Your task to perform on an android device: turn off improve location accuracy Image 0: 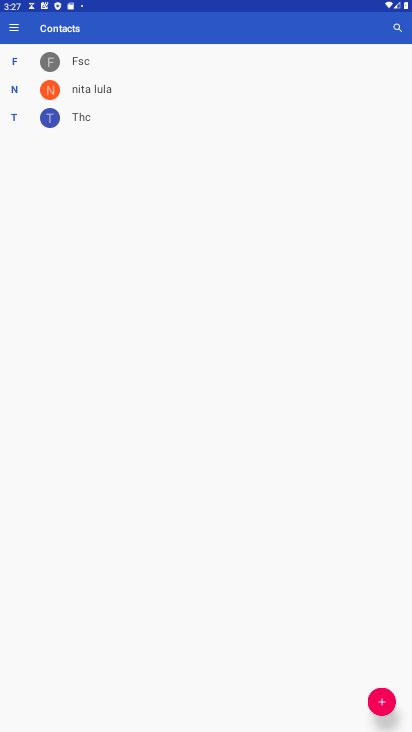
Step 0: press home button
Your task to perform on an android device: turn off improve location accuracy Image 1: 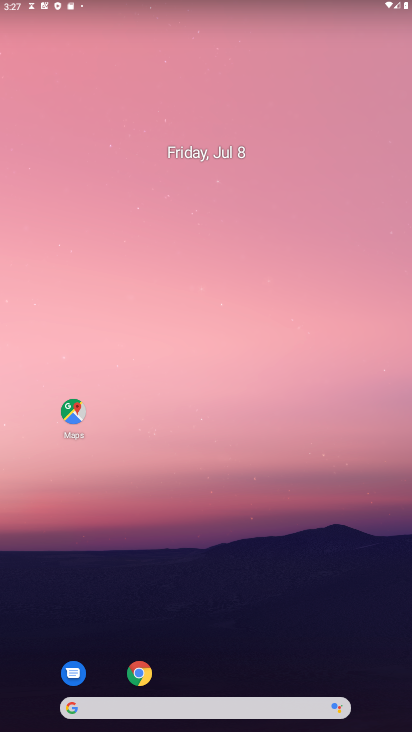
Step 1: drag from (169, 666) to (223, 118)
Your task to perform on an android device: turn off improve location accuracy Image 2: 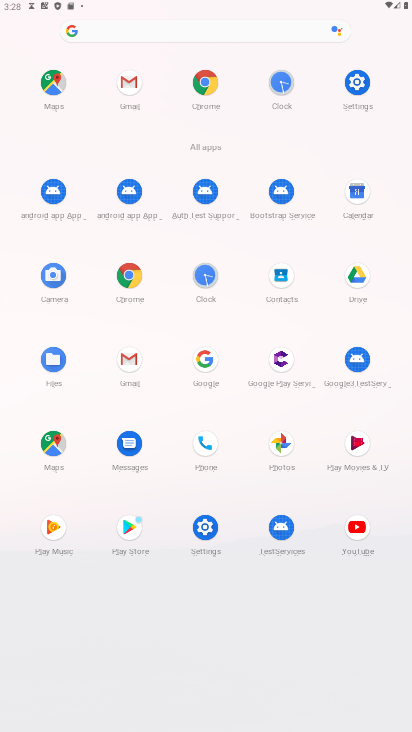
Step 2: click (204, 535)
Your task to perform on an android device: turn off improve location accuracy Image 3: 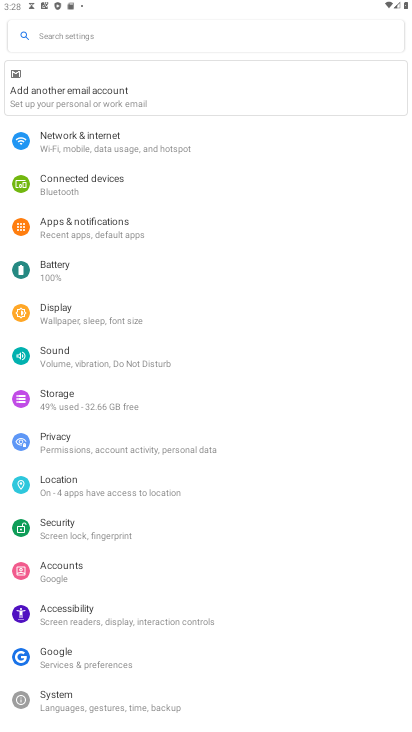
Step 3: click (110, 489)
Your task to perform on an android device: turn off improve location accuracy Image 4: 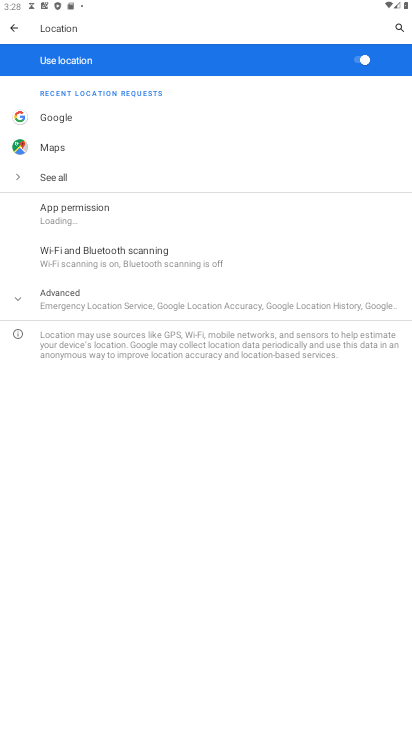
Step 4: click (98, 310)
Your task to perform on an android device: turn off improve location accuracy Image 5: 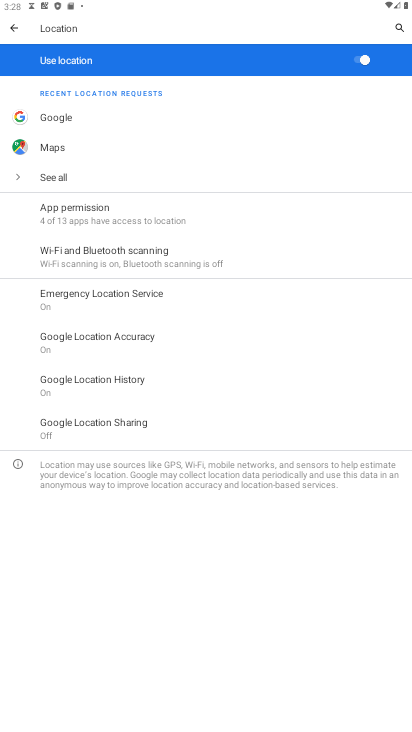
Step 5: click (130, 337)
Your task to perform on an android device: turn off improve location accuracy Image 6: 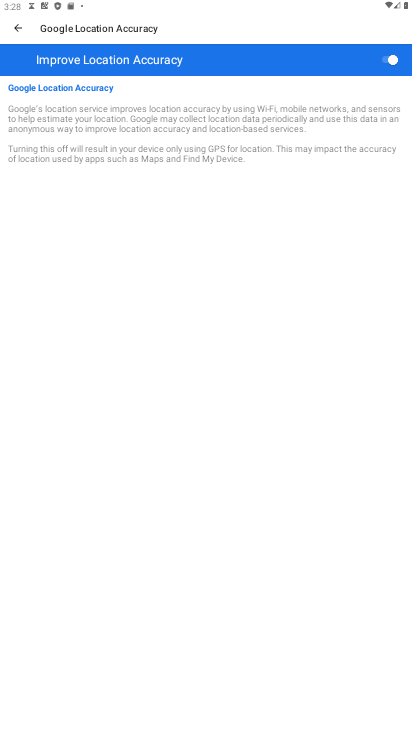
Step 6: click (378, 65)
Your task to perform on an android device: turn off improve location accuracy Image 7: 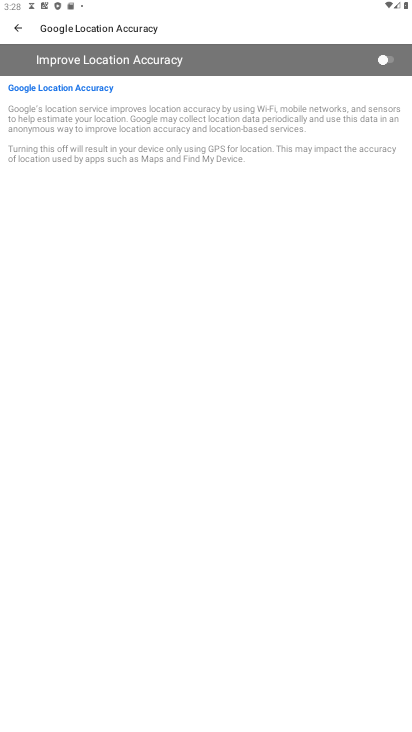
Step 7: task complete